Your task to perform on an android device: Open Wikipedia Image 0: 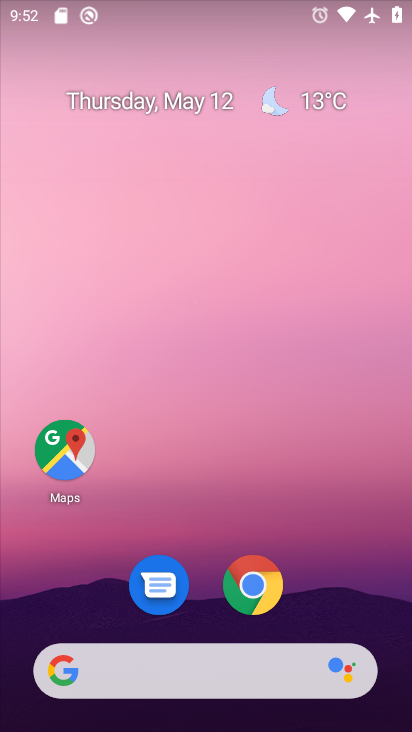
Step 0: click (252, 585)
Your task to perform on an android device: Open Wikipedia Image 1: 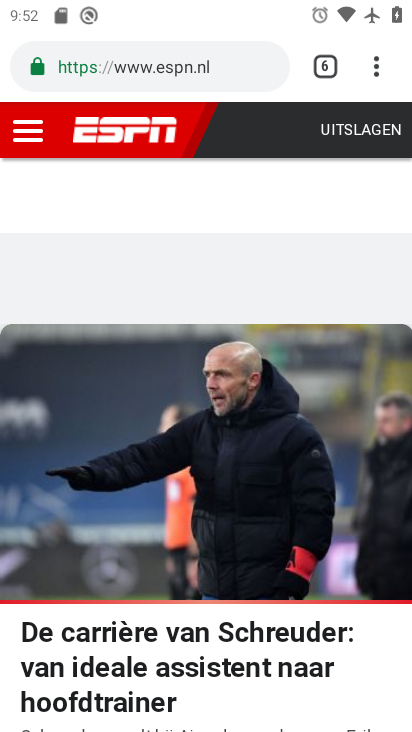
Step 1: click (375, 60)
Your task to perform on an android device: Open Wikipedia Image 2: 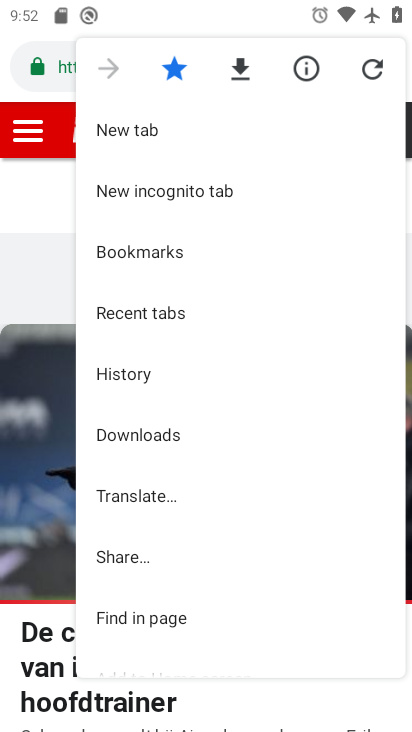
Step 2: click (298, 123)
Your task to perform on an android device: Open Wikipedia Image 3: 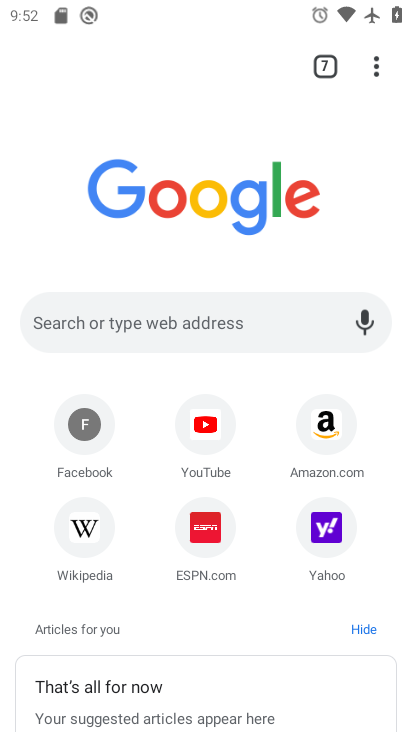
Step 3: click (71, 531)
Your task to perform on an android device: Open Wikipedia Image 4: 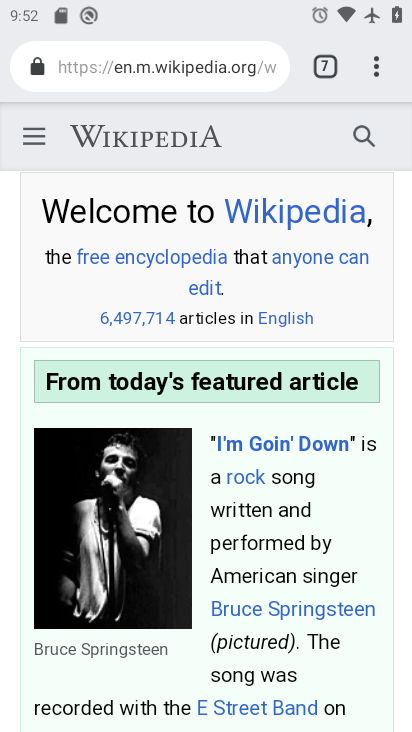
Step 4: task complete